Your task to perform on an android device: Go to Google Image 0: 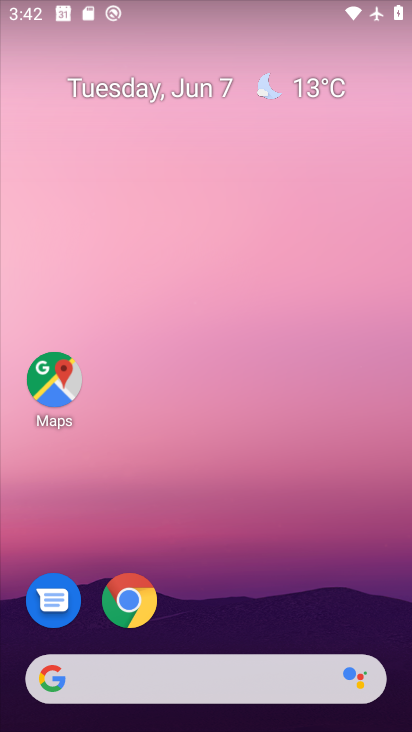
Step 0: press home button
Your task to perform on an android device: Go to Google Image 1: 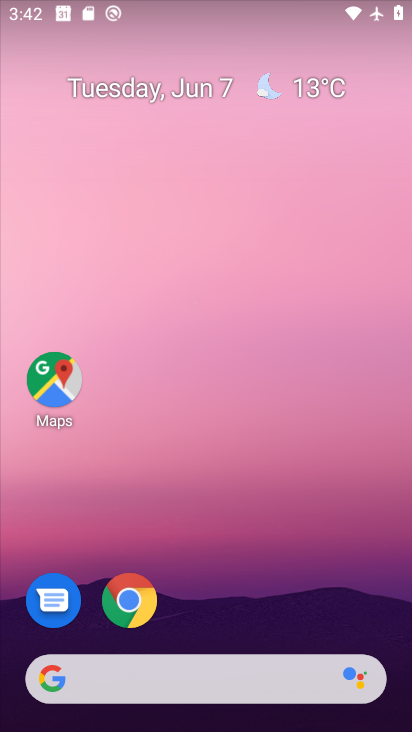
Step 1: drag from (253, 534) to (274, 197)
Your task to perform on an android device: Go to Google Image 2: 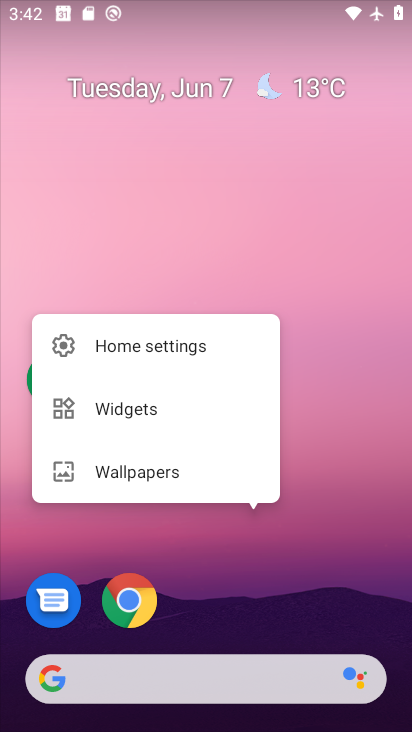
Step 2: click (372, 543)
Your task to perform on an android device: Go to Google Image 3: 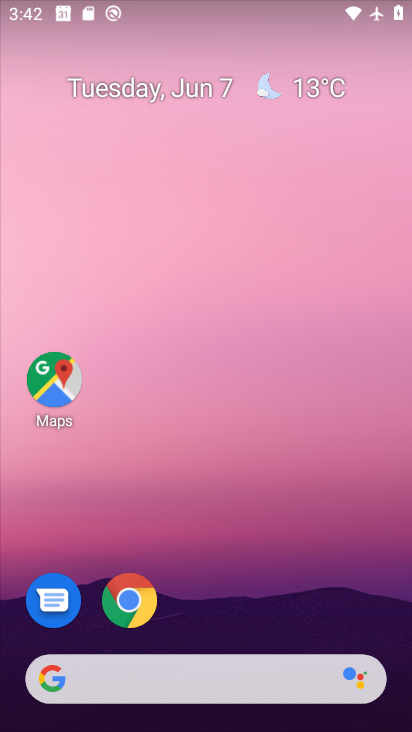
Step 3: drag from (299, 519) to (289, 210)
Your task to perform on an android device: Go to Google Image 4: 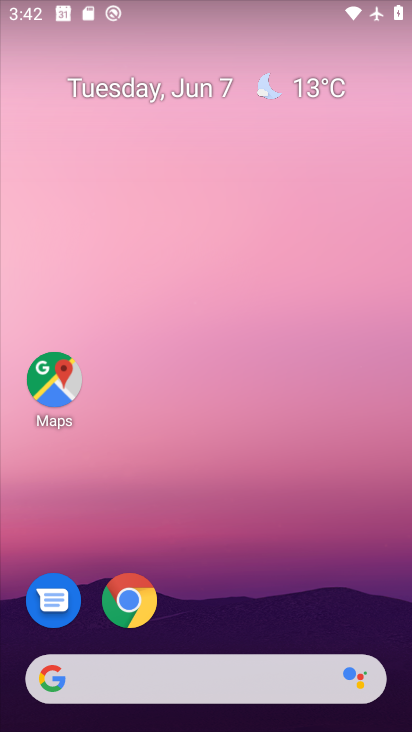
Step 4: drag from (287, 513) to (271, 133)
Your task to perform on an android device: Go to Google Image 5: 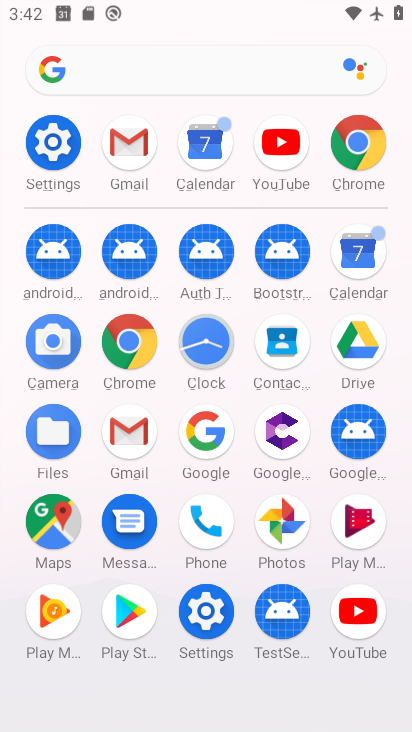
Step 5: click (216, 436)
Your task to perform on an android device: Go to Google Image 6: 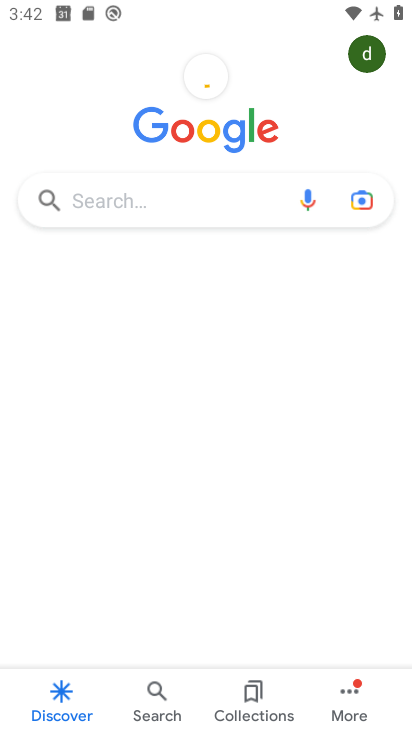
Step 6: task complete